Your task to perform on an android device: set the stopwatch Image 0: 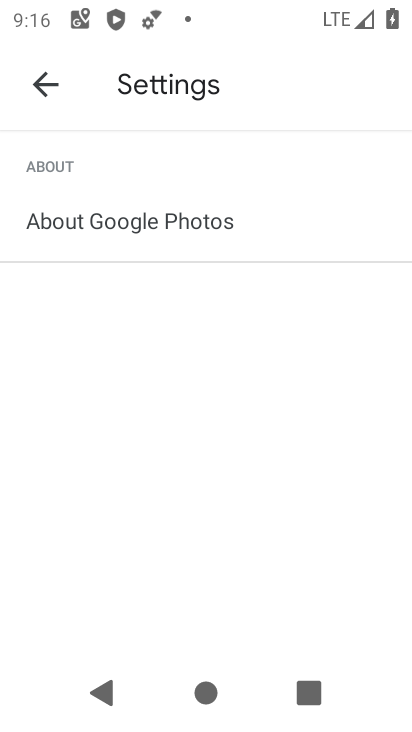
Step 0: press home button
Your task to perform on an android device: set the stopwatch Image 1: 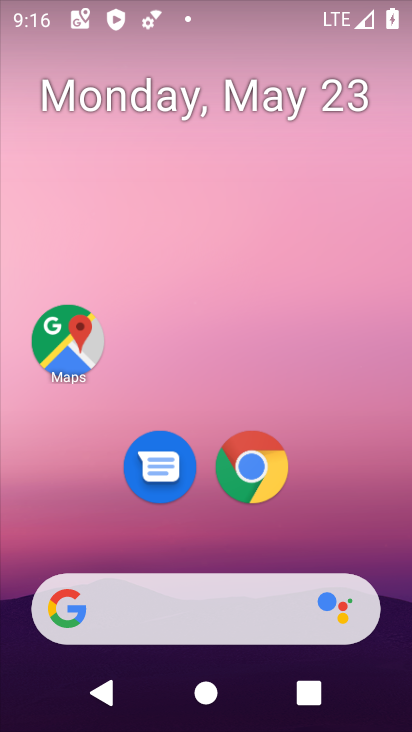
Step 1: drag from (322, 507) to (257, 42)
Your task to perform on an android device: set the stopwatch Image 2: 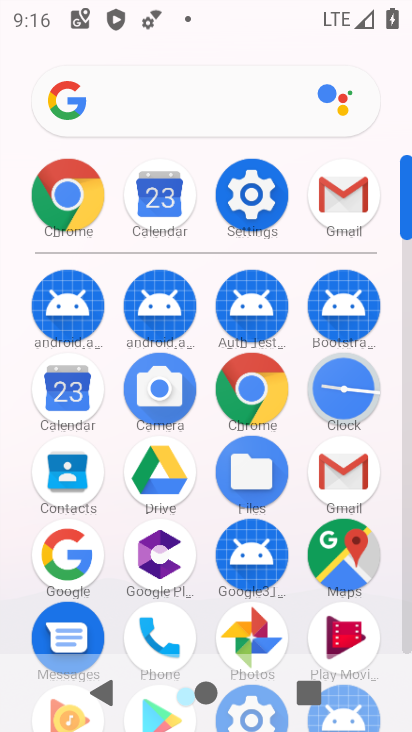
Step 2: click (344, 377)
Your task to perform on an android device: set the stopwatch Image 3: 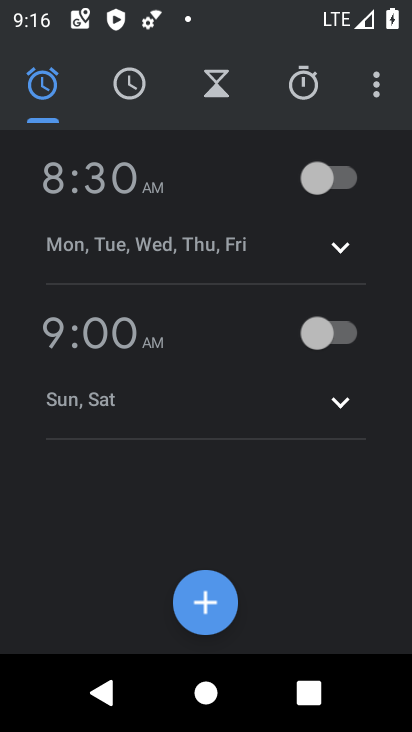
Step 3: click (313, 92)
Your task to perform on an android device: set the stopwatch Image 4: 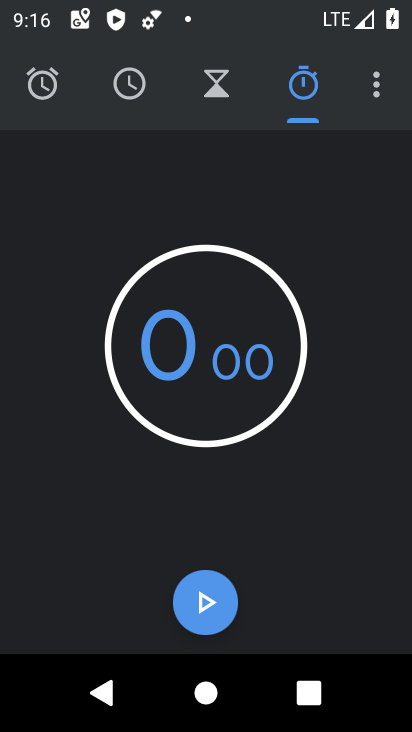
Step 4: click (212, 594)
Your task to perform on an android device: set the stopwatch Image 5: 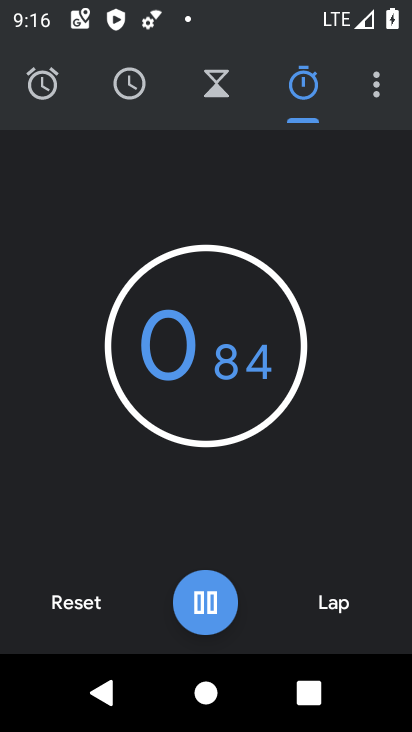
Step 5: task complete